Your task to perform on an android device: Open Google Maps Image 0: 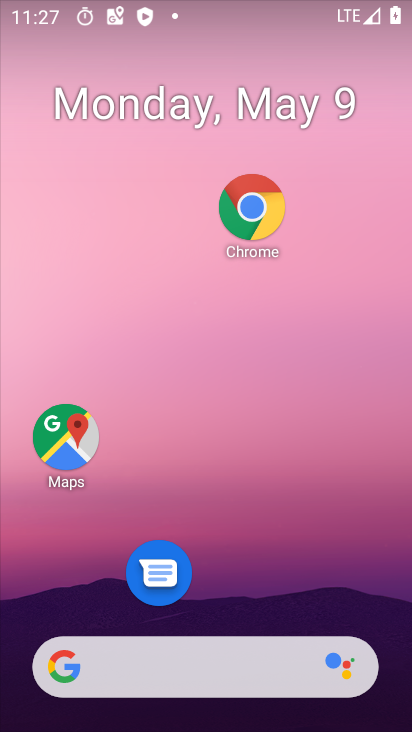
Step 0: drag from (347, 518) to (363, 180)
Your task to perform on an android device: Open Google Maps Image 1: 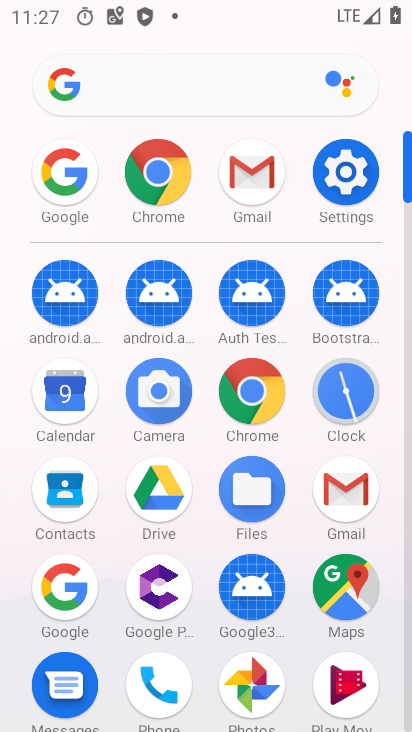
Step 1: drag from (337, 443) to (388, 216)
Your task to perform on an android device: Open Google Maps Image 2: 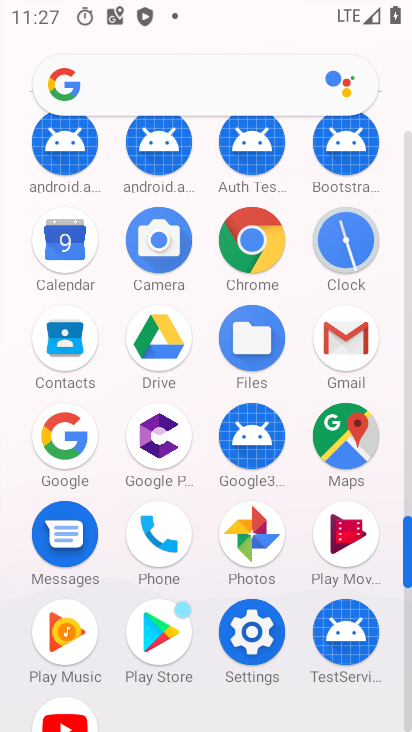
Step 2: click (343, 424)
Your task to perform on an android device: Open Google Maps Image 3: 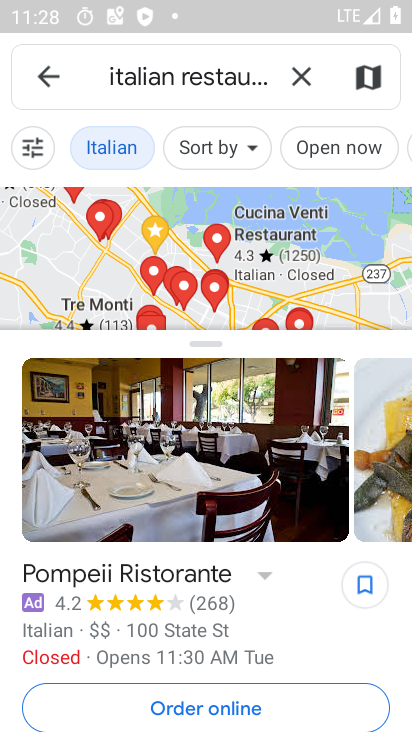
Step 3: task complete